Your task to perform on an android device: Open my contact list Image 0: 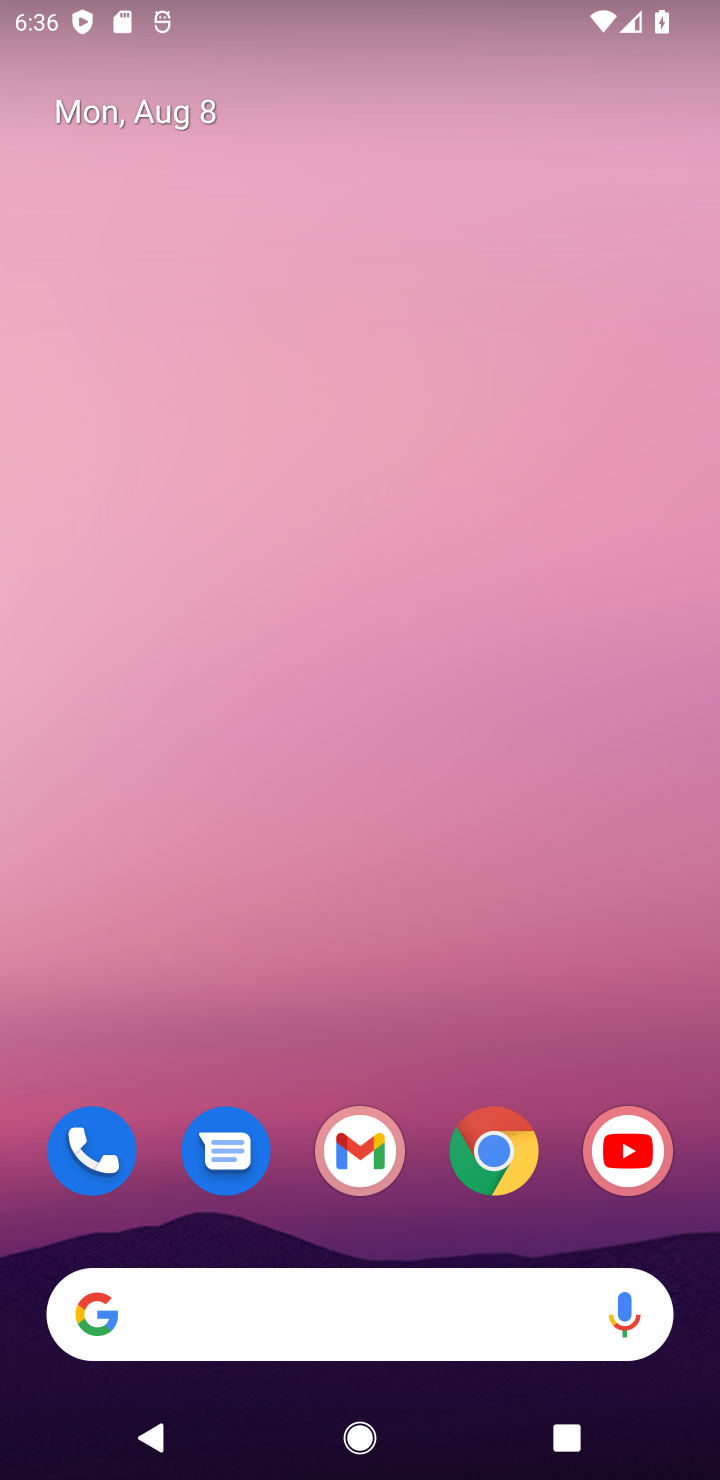
Step 0: drag from (385, 1016) to (447, 0)
Your task to perform on an android device: Open my contact list Image 1: 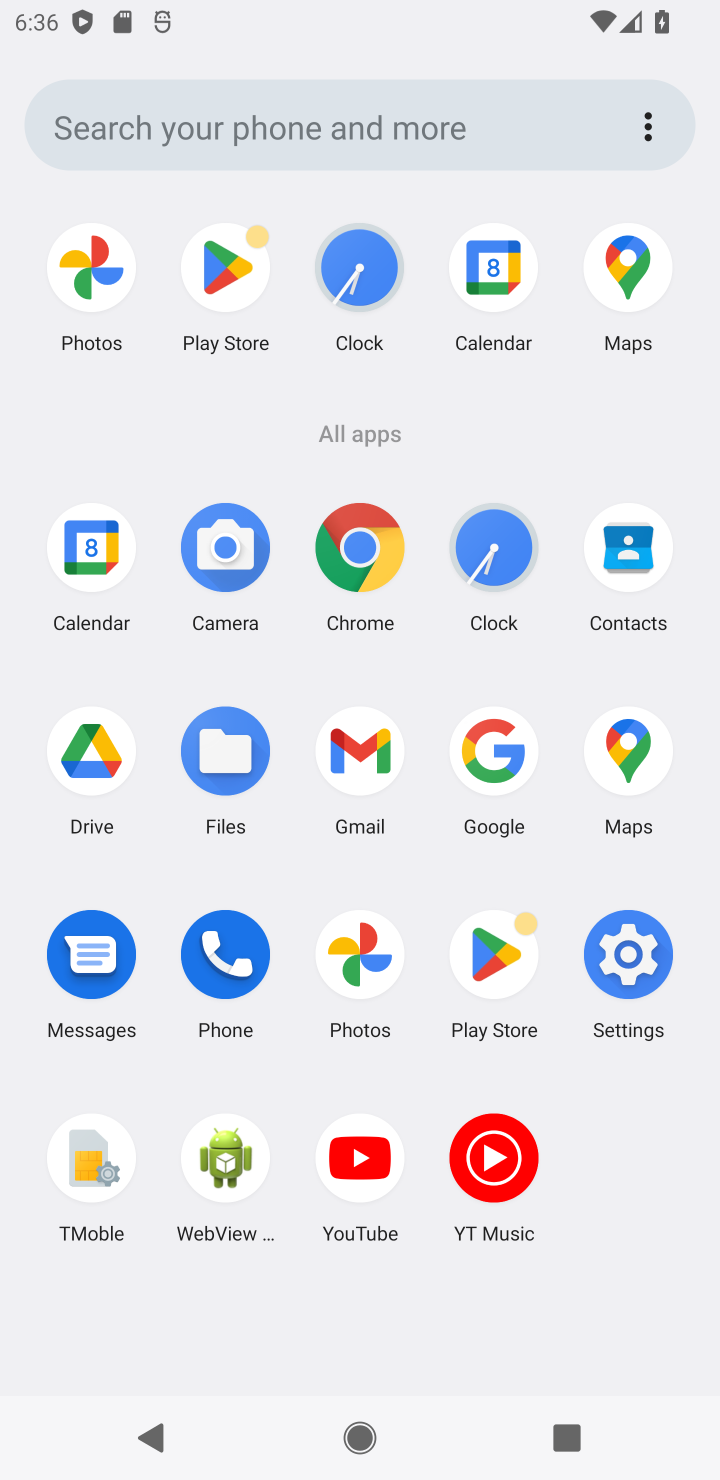
Step 1: click (639, 575)
Your task to perform on an android device: Open my contact list Image 2: 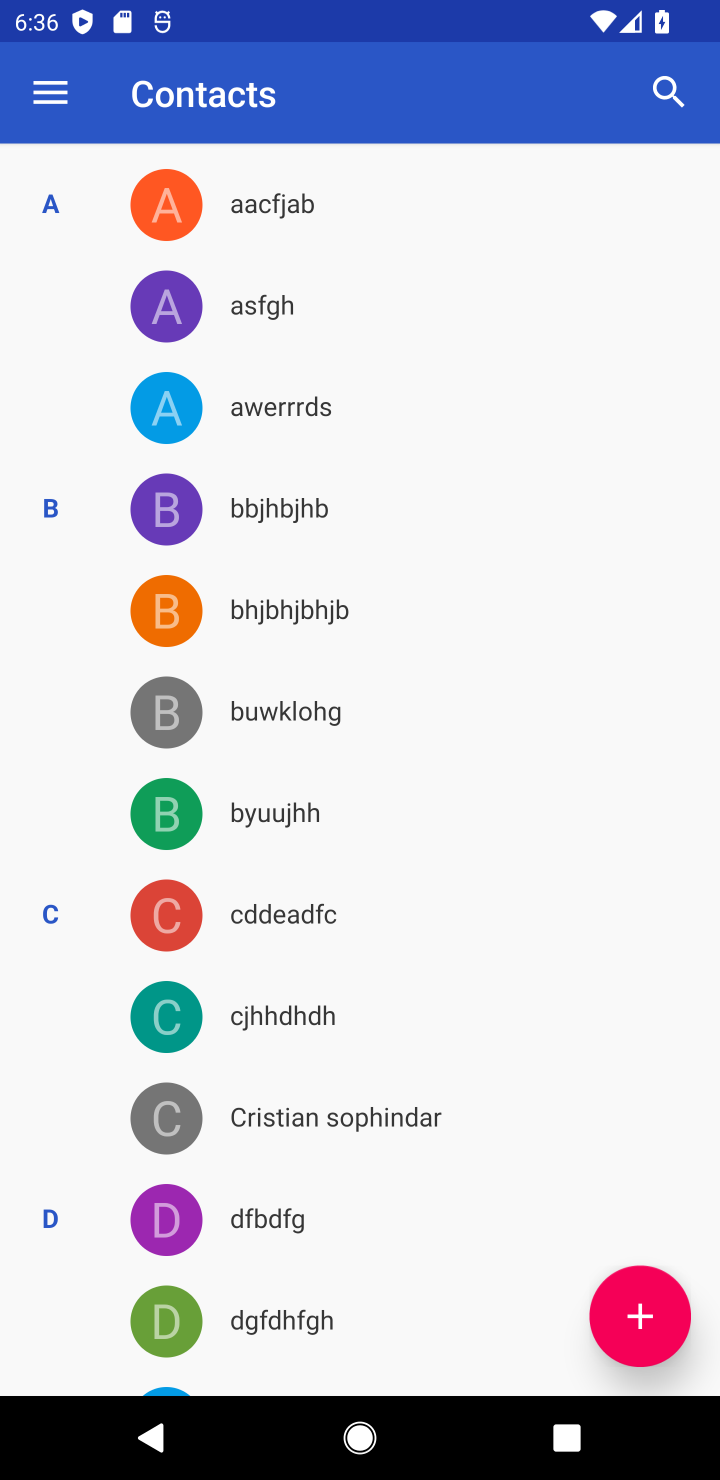
Step 2: task complete